Your task to perform on an android device: empty trash in google photos Image 0: 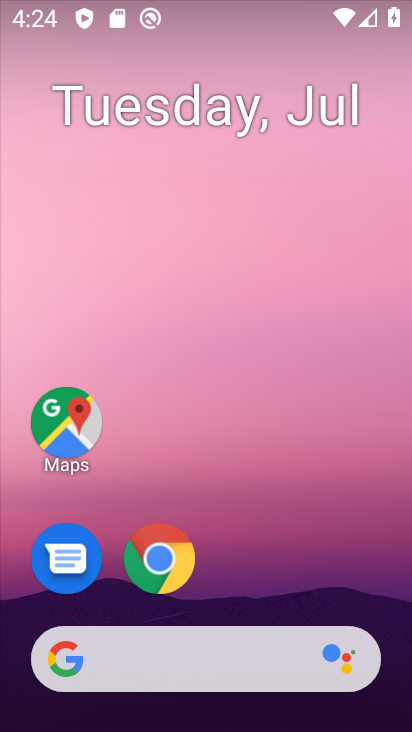
Step 0: drag from (243, 654) to (257, 242)
Your task to perform on an android device: empty trash in google photos Image 1: 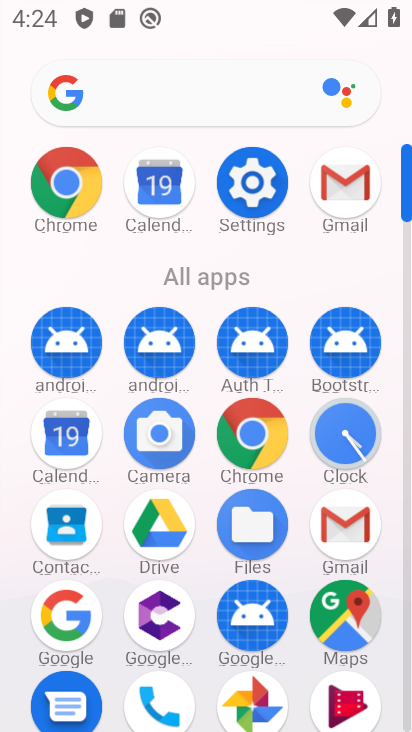
Step 1: click (248, 702)
Your task to perform on an android device: empty trash in google photos Image 2: 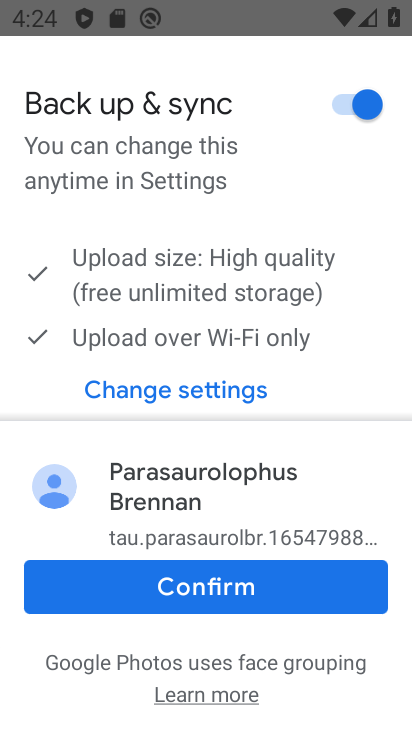
Step 2: click (309, 594)
Your task to perform on an android device: empty trash in google photos Image 3: 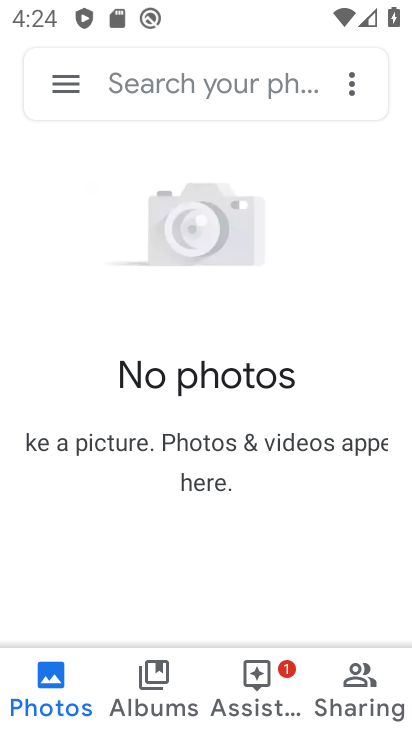
Step 3: click (58, 81)
Your task to perform on an android device: empty trash in google photos Image 4: 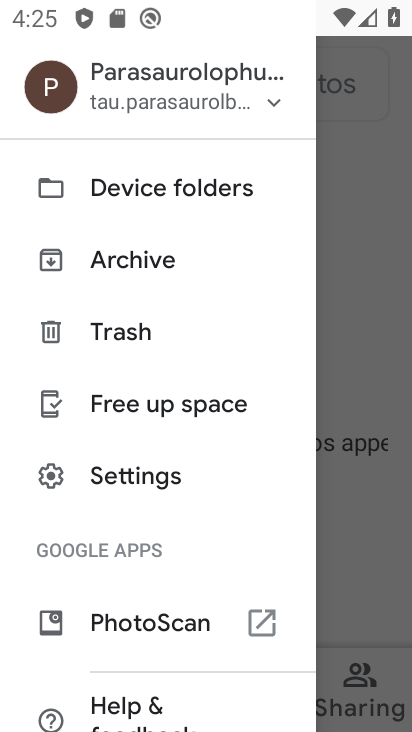
Step 4: click (114, 339)
Your task to perform on an android device: empty trash in google photos Image 5: 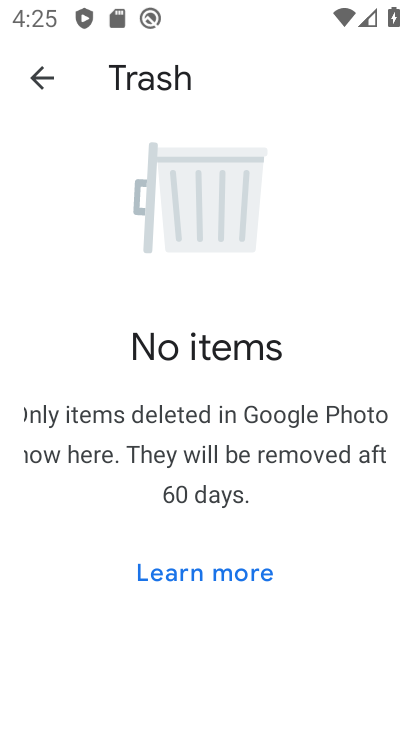
Step 5: task complete